Your task to perform on an android device: set the timer Image 0: 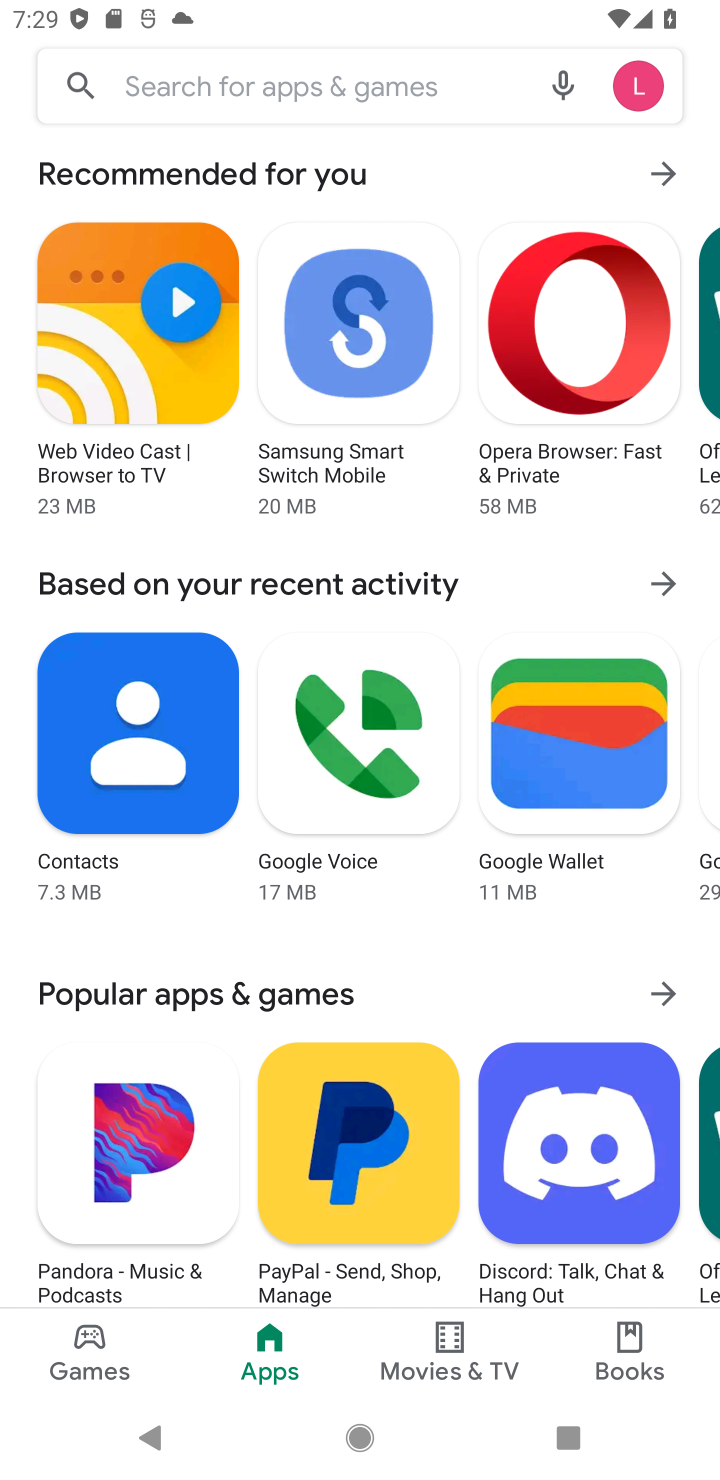
Step 0: press home button
Your task to perform on an android device: set the timer Image 1: 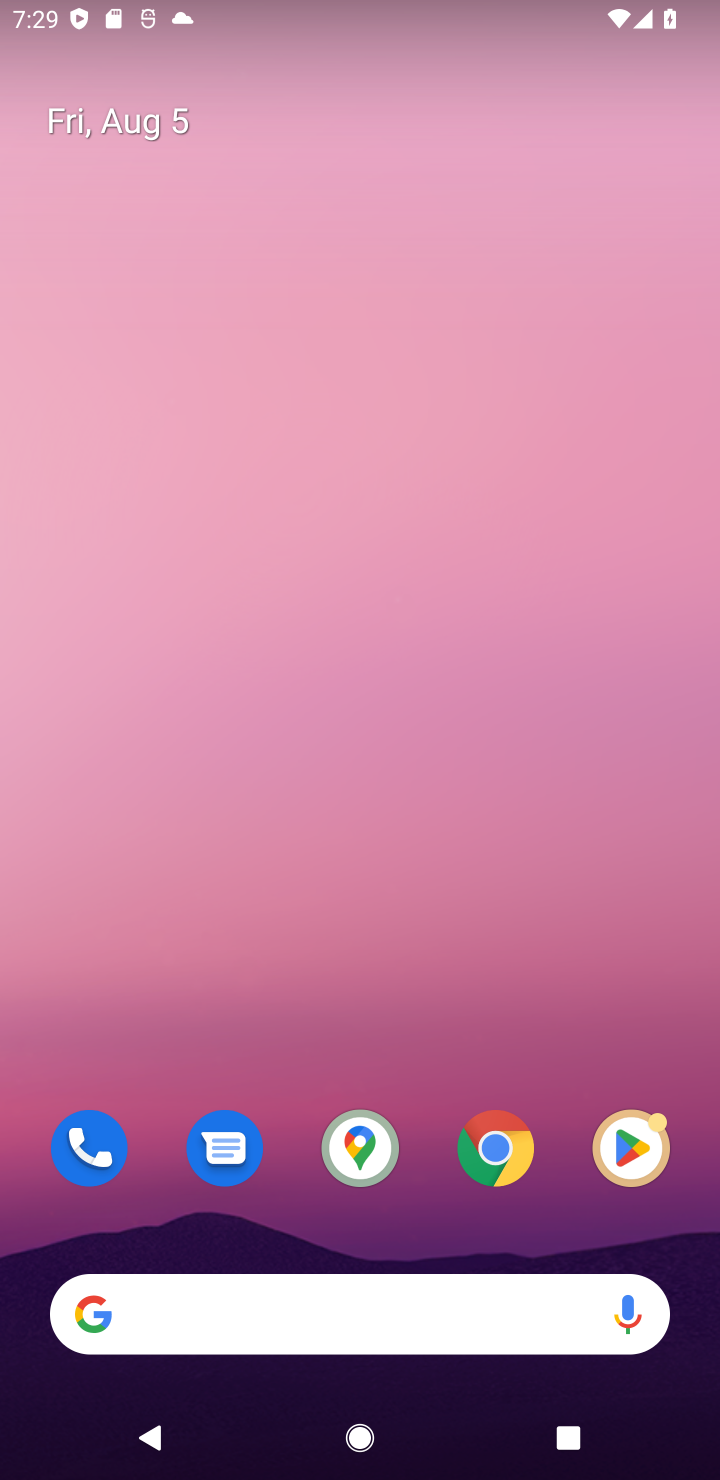
Step 1: drag from (407, 1251) to (507, 303)
Your task to perform on an android device: set the timer Image 2: 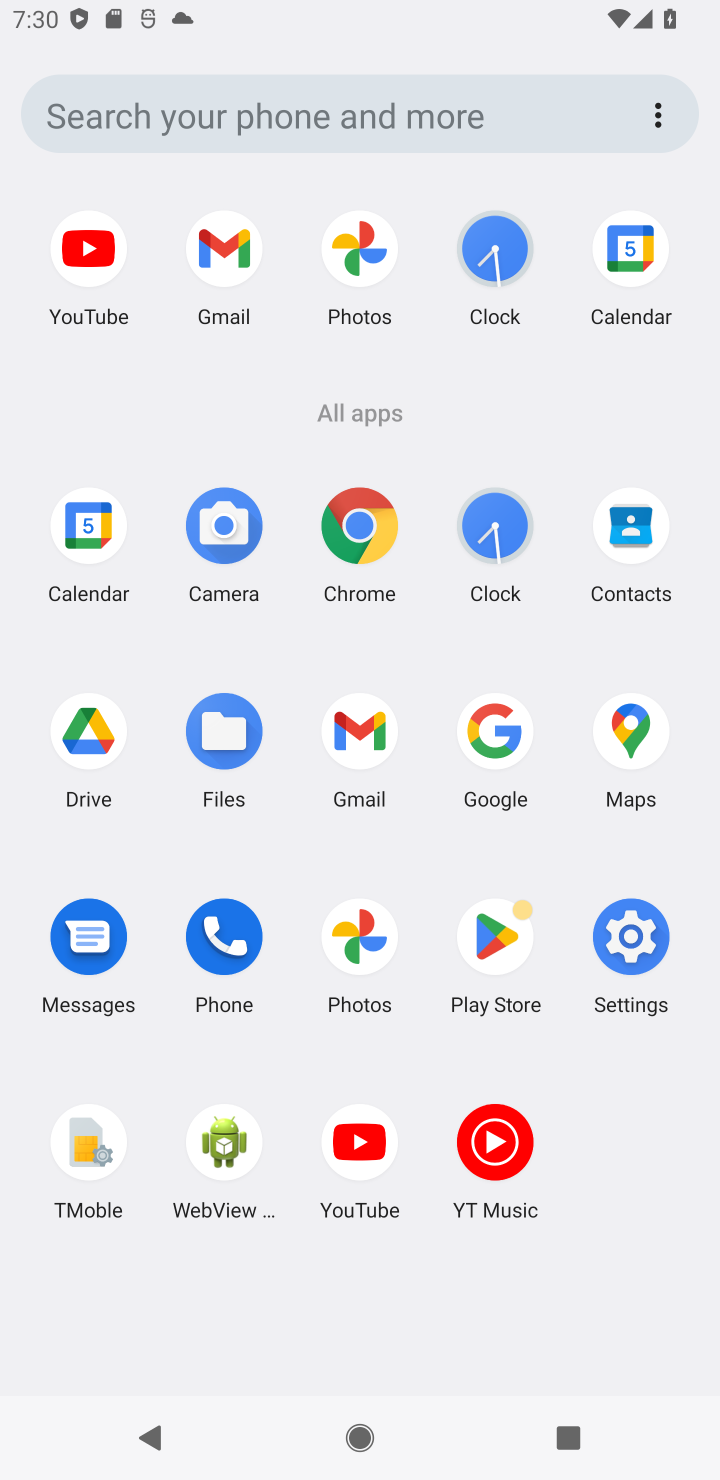
Step 2: click (472, 571)
Your task to perform on an android device: set the timer Image 3: 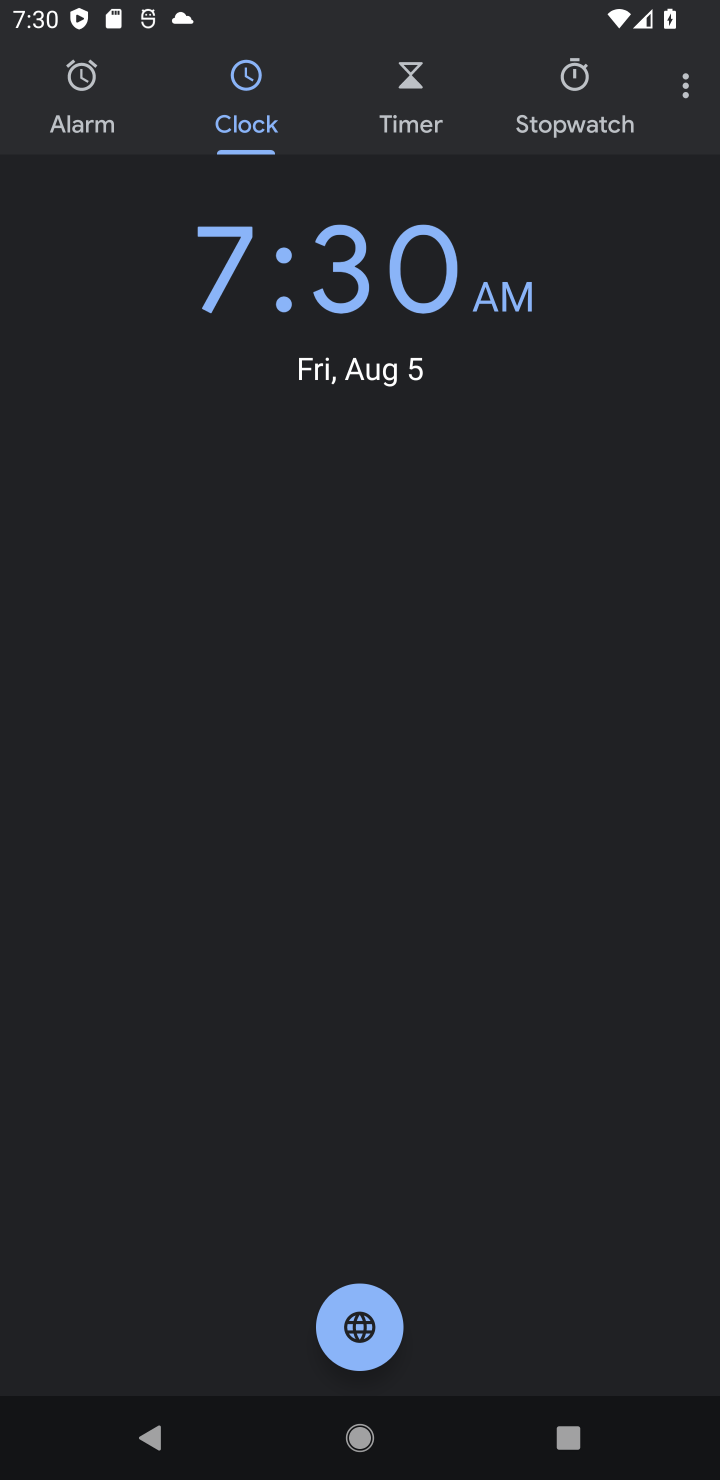
Step 3: click (368, 100)
Your task to perform on an android device: set the timer Image 4: 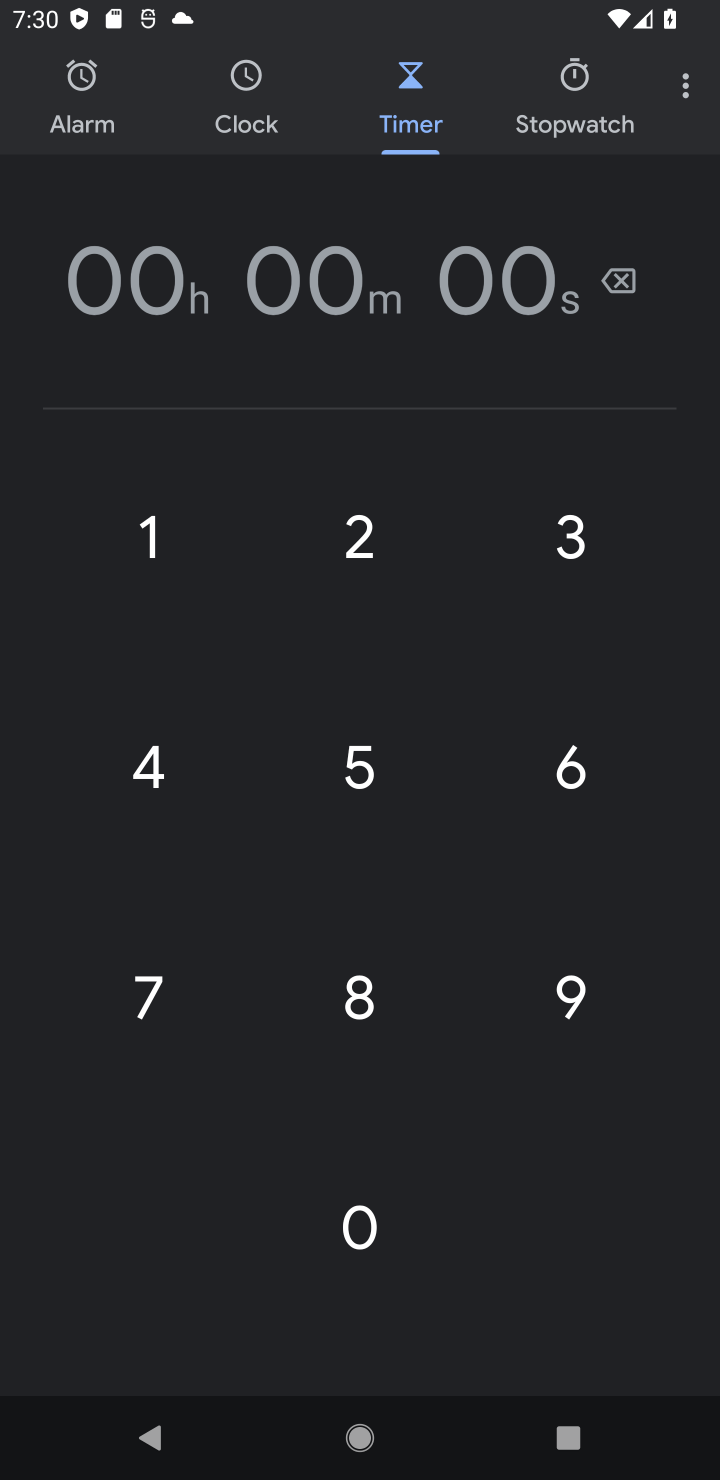
Step 4: task complete